Your task to perform on an android device: Open notification settings Image 0: 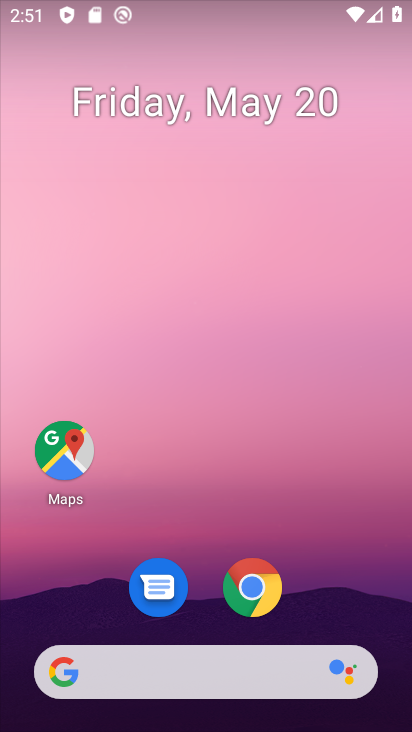
Step 0: drag from (338, 594) to (347, 187)
Your task to perform on an android device: Open notification settings Image 1: 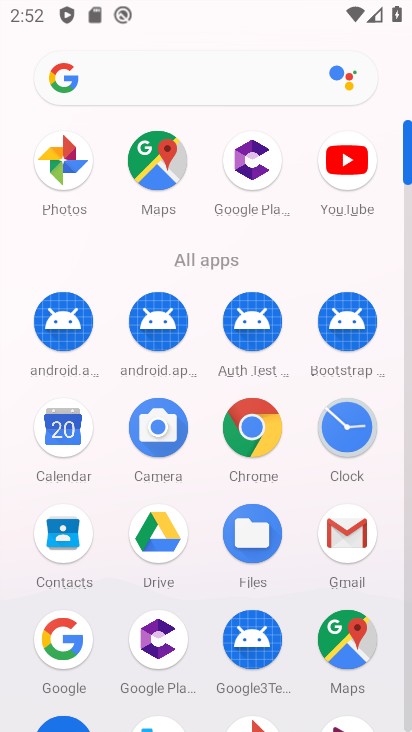
Step 1: click (405, 700)
Your task to perform on an android device: Open notification settings Image 2: 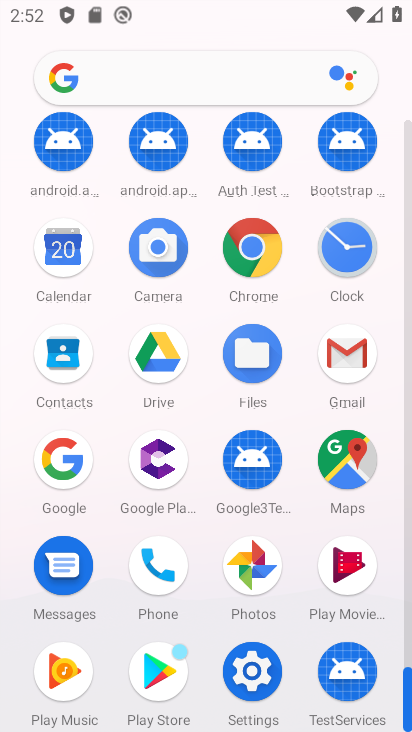
Step 2: click (251, 674)
Your task to perform on an android device: Open notification settings Image 3: 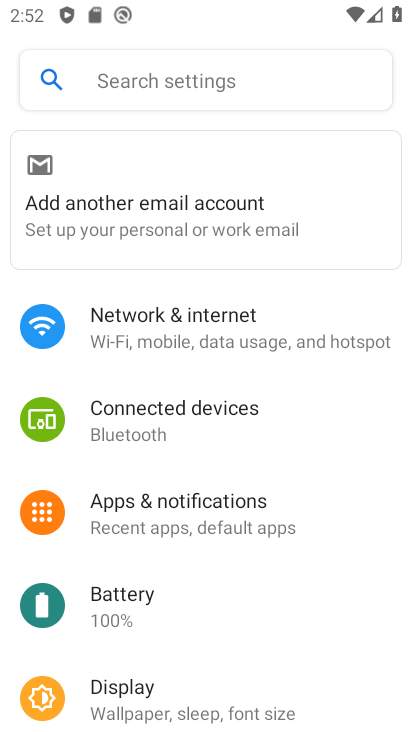
Step 3: click (243, 528)
Your task to perform on an android device: Open notification settings Image 4: 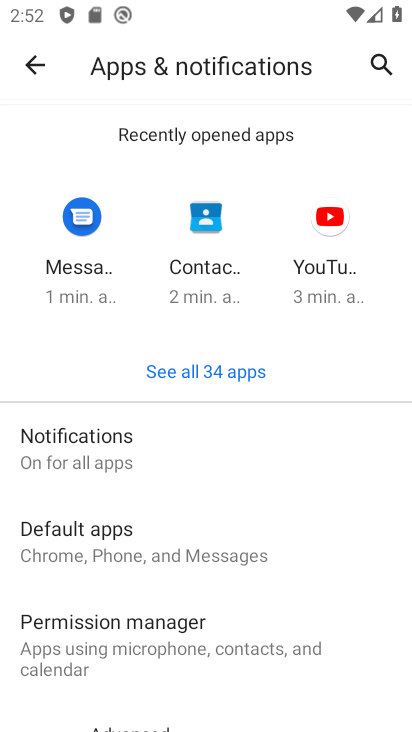
Step 4: click (149, 436)
Your task to perform on an android device: Open notification settings Image 5: 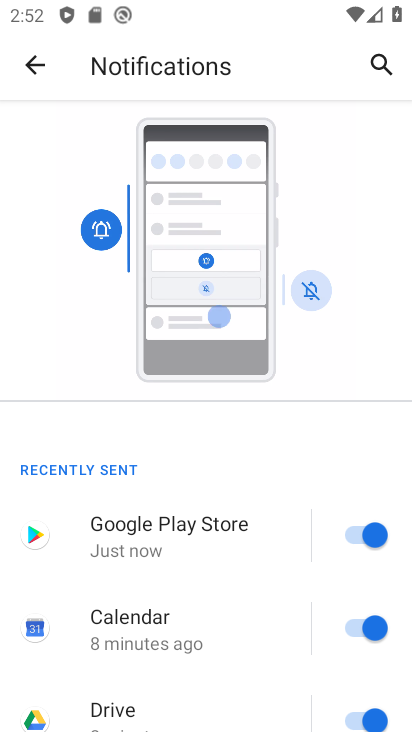
Step 5: task complete